Your task to perform on an android device: Open Google Chrome and open the bookmarks view Image 0: 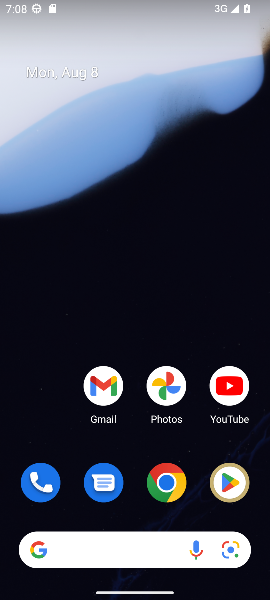
Step 0: drag from (171, 531) to (196, 3)
Your task to perform on an android device: Open Google Chrome and open the bookmarks view Image 1: 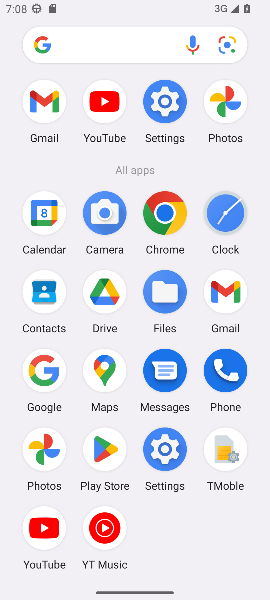
Step 1: click (167, 212)
Your task to perform on an android device: Open Google Chrome and open the bookmarks view Image 2: 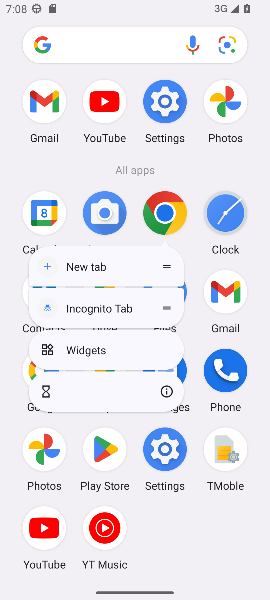
Step 2: click (167, 212)
Your task to perform on an android device: Open Google Chrome and open the bookmarks view Image 3: 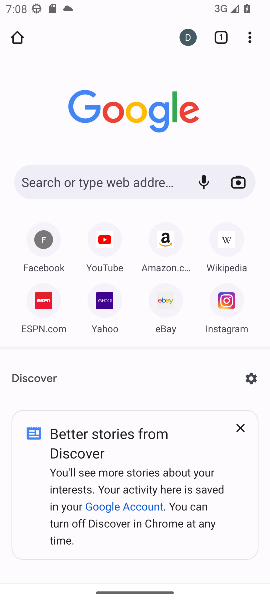
Step 3: task complete